Your task to perform on an android device: Open location settings Image 0: 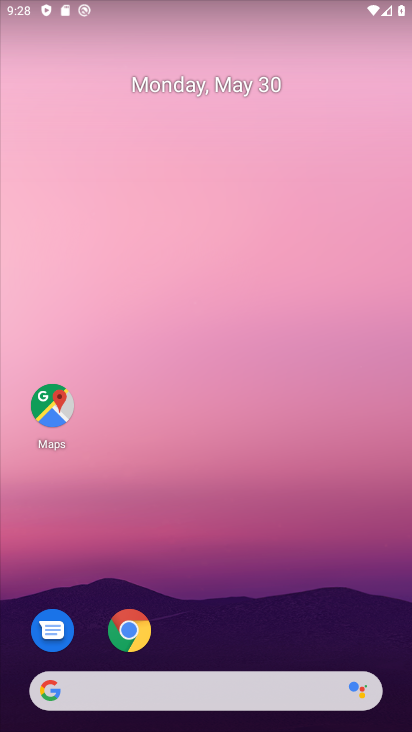
Step 0: drag from (293, 660) to (264, 115)
Your task to perform on an android device: Open location settings Image 1: 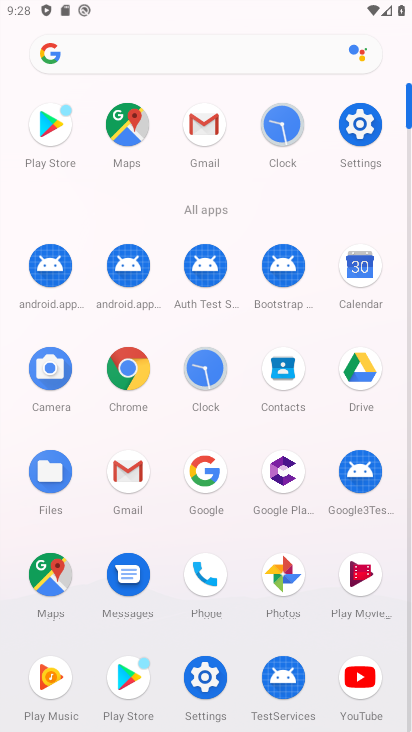
Step 1: click (356, 135)
Your task to perform on an android device: Open location settings Image 2: 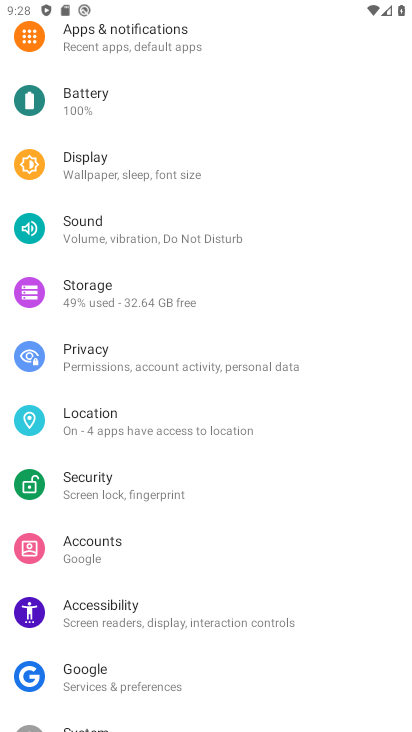
Step 2: click (199, 403)
Your task to perform on an android device: Open location settings Image 3: 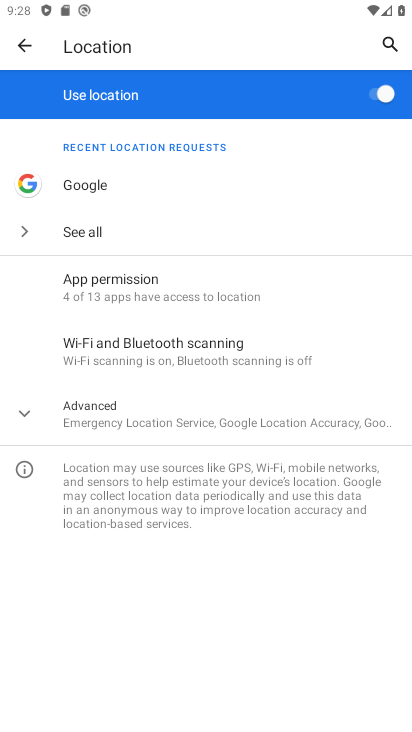
Step 3: task complete